Your task to perform on an android device: Open Google Maps Image 0: 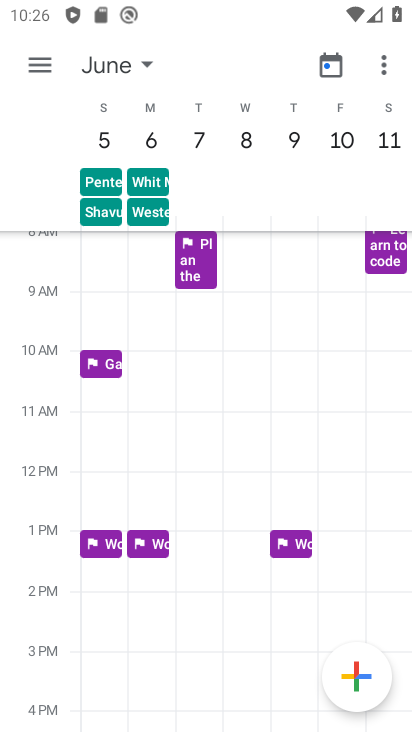
Step 0: press home button
Your task to perform on an android device: Open Google Maps Image 1: 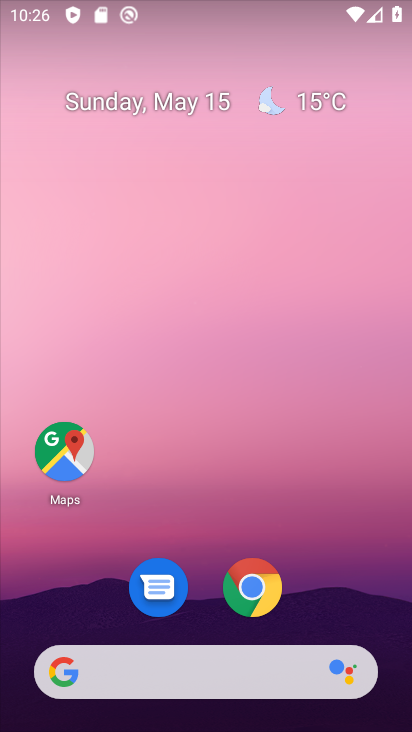
Step 1: click (71, 474)
Your task to perform on an android device: Open Google Maps Image 2: 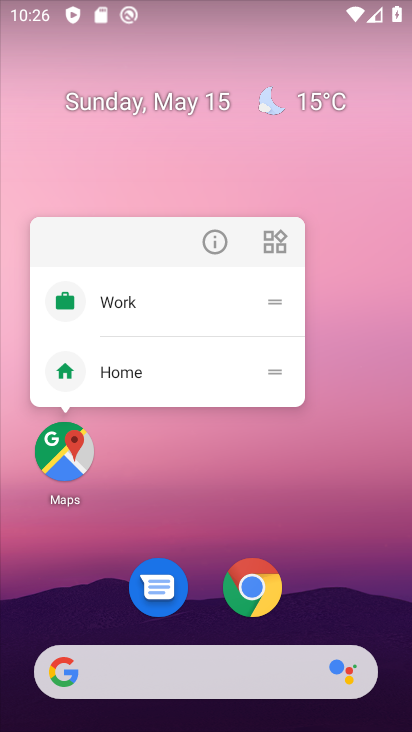
Step 2: click (64, 464)
Your task to perform on an android device: Open Google Maps Image 3: 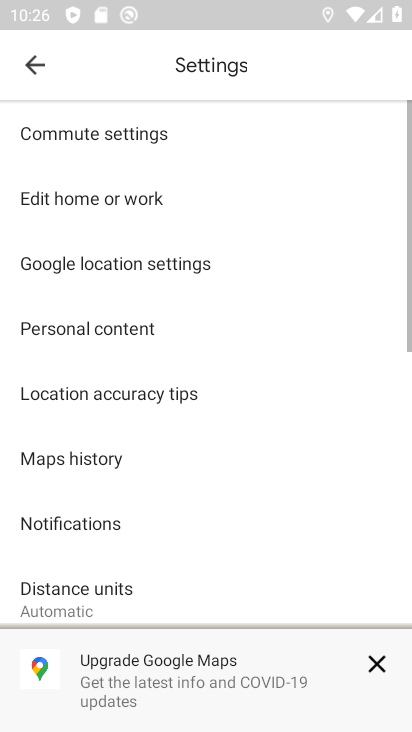
Step 3: click (40, 74)
Your task to perform on an android device: Open Google Maps Image 4: 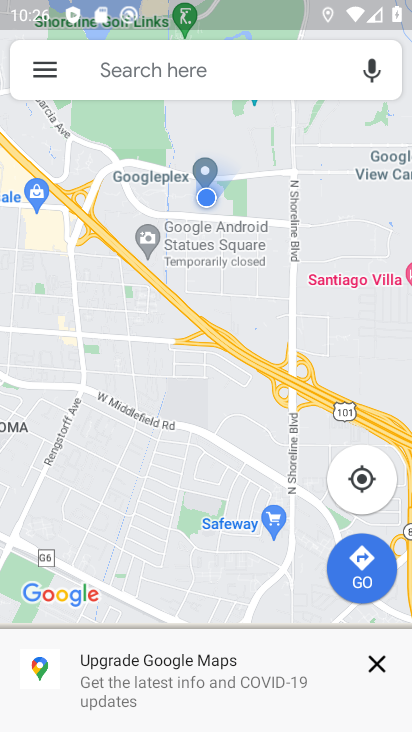
Step 4: click (378, 675)
Your task to perform on an android device: Open Google Maps Image 5: 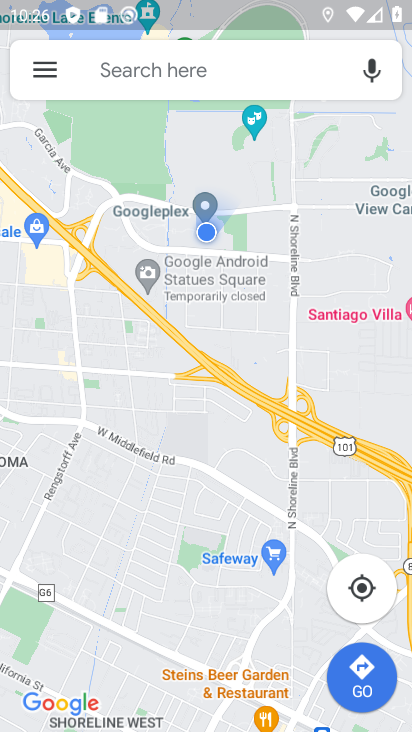
Step 5: task complete